Your task to perform on an android device: change your default location settings in chrome Image 0: 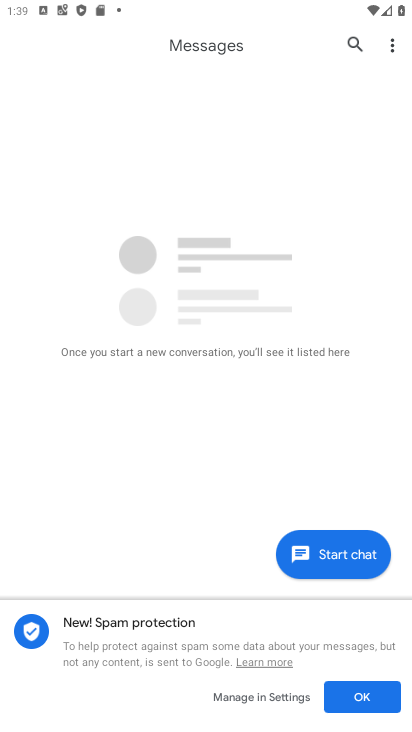
Step 0: press home button
Your task to perform on an android device: change your default location settings in chrome Image 1: 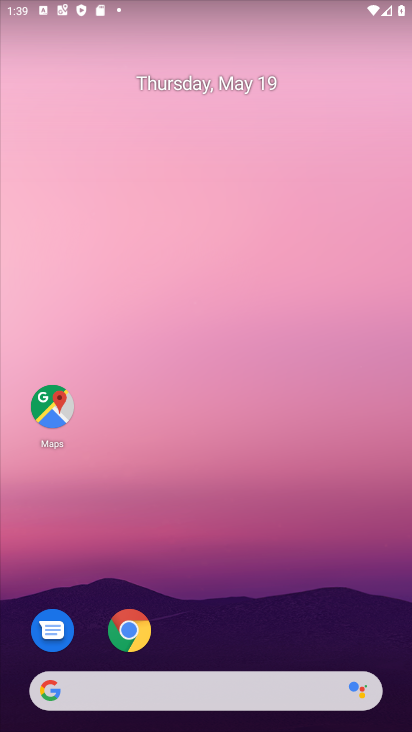
Step 1: click (126, 627)
Your task to perform on an android device: change your default location settings in chrome Image 2: 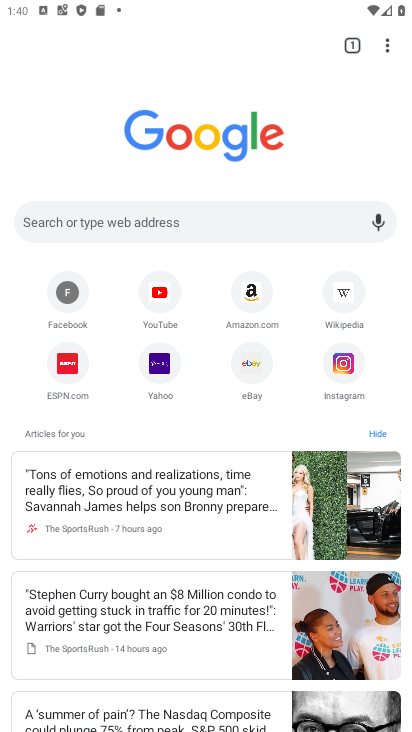
Step 2: click (383, 50)
Your task to perform on an android device: change your default location settings in chrome Image 3: 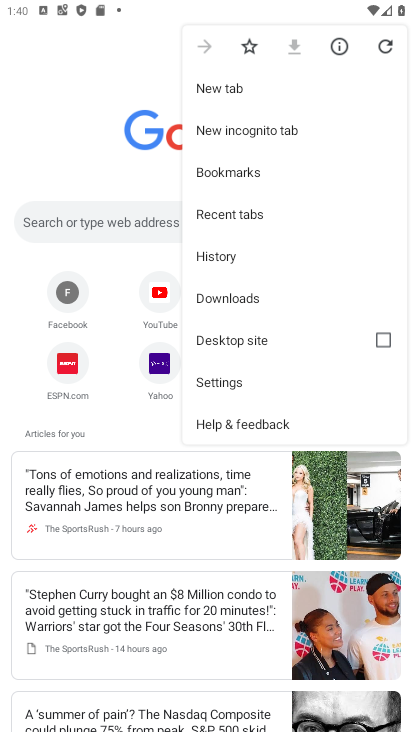
Step 3: click (223, 376)
Your task to perform on an android device: change your default location settings in chrome Image 4: 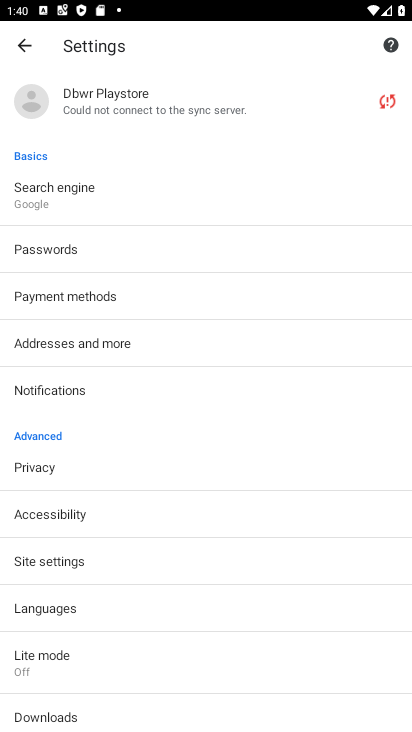
Step 4: click (52, 558)
Your task to perform on an android device: change your default location settings in chrome Image 5: 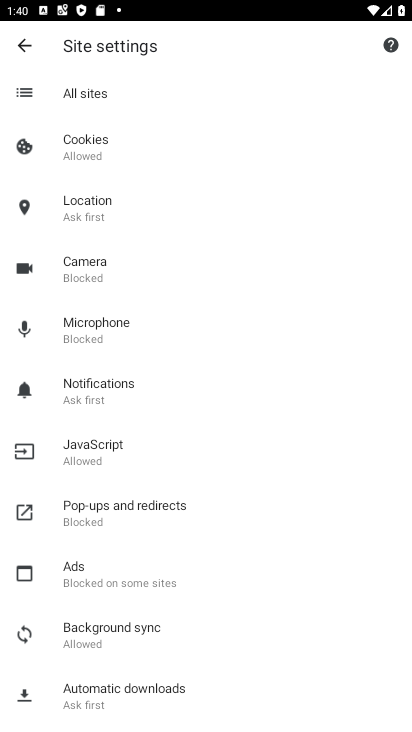
Step 5: click (84, 204)
Your task to perform on an android device: change your default location settings in chrome Image 6: 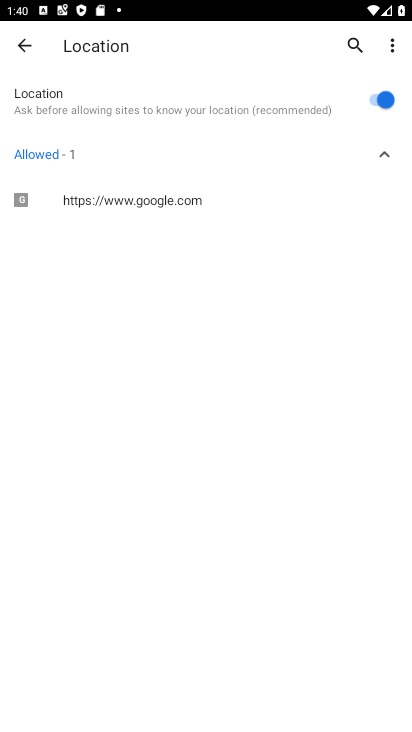
Step 6: click (369, 98)
Your task to perform on an android device: change your default location settings in chrome Image 7: 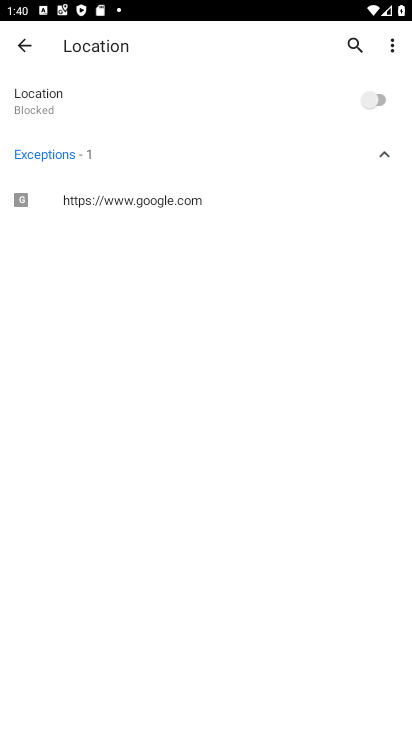
Step 7: task complete